Your task to perform on an android device: What is the recent news? Image 0: 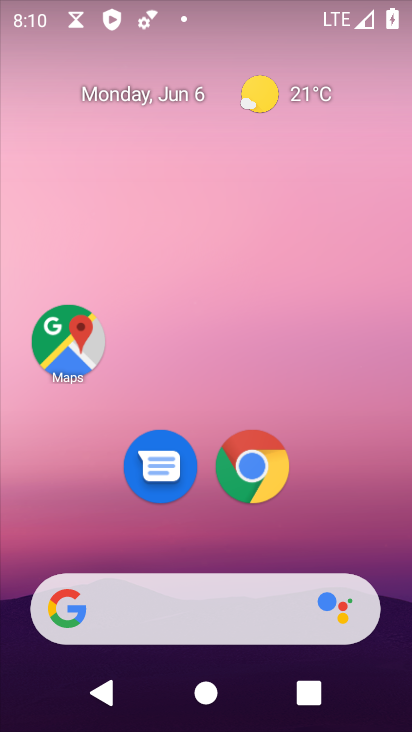
Step 0: drag from (204, 548) to (260, 227)
Your task to perform on an android device: What is the recent news? Image 1: 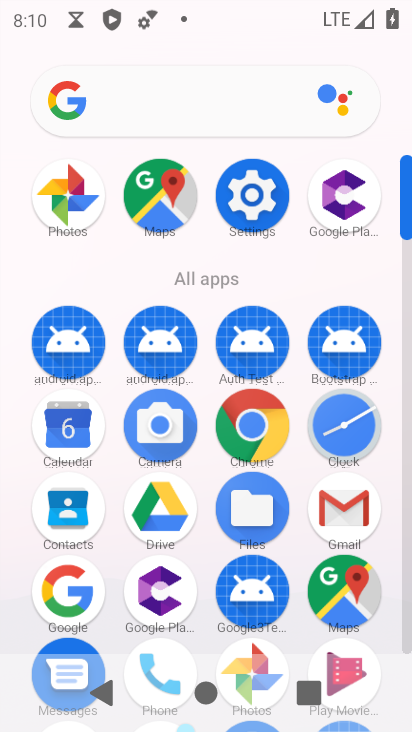
Step 1: drag from (203, 528) to (216, 240)
Your task to perform on an android device: What is the recent news? Image 2: 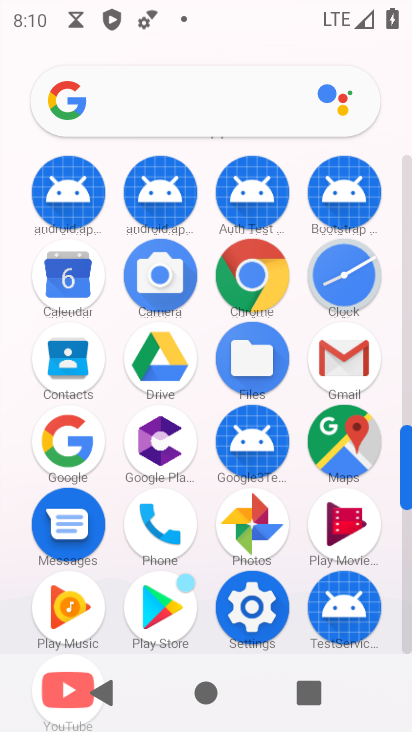
Step 2: click (167, 122)
Your task to perform on an android device: What is the recent news? Image 3: 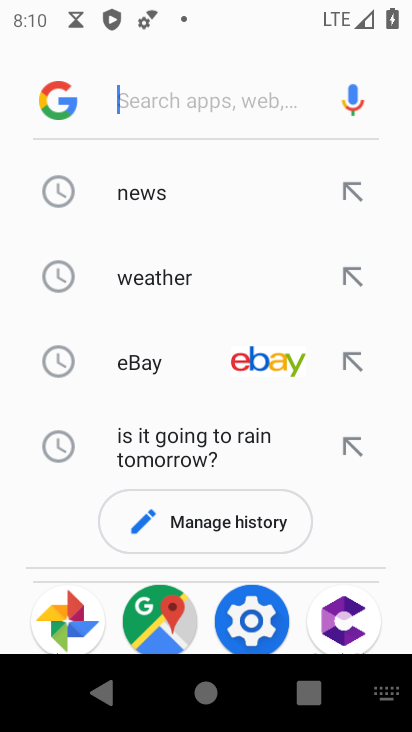
Step 3: click (191, 103)
Your task to perform on an android device: What is the recent news? Image 4: 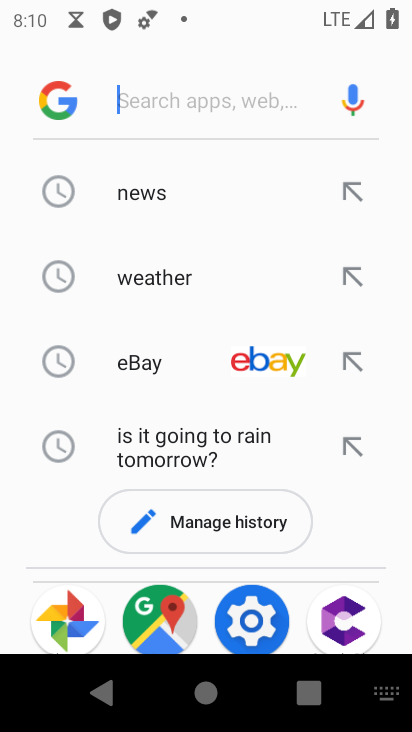
Step 4: click (152, 114)
Your task to perform on an android device: What is the recent news? Image 5: 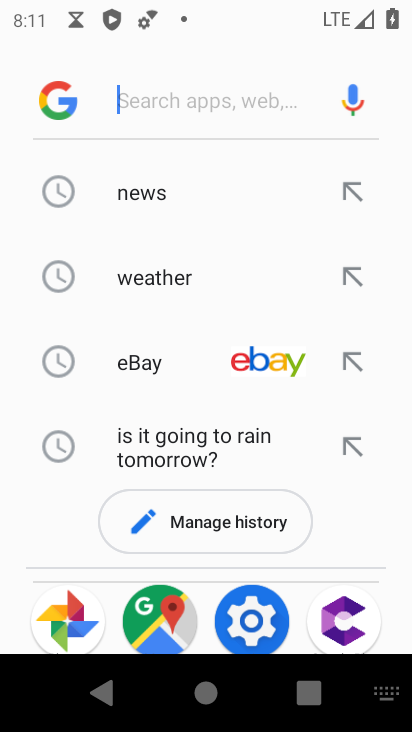
Step 5: type "recent news"
Your task to perform on an android device: What is the recent news? Image 6: 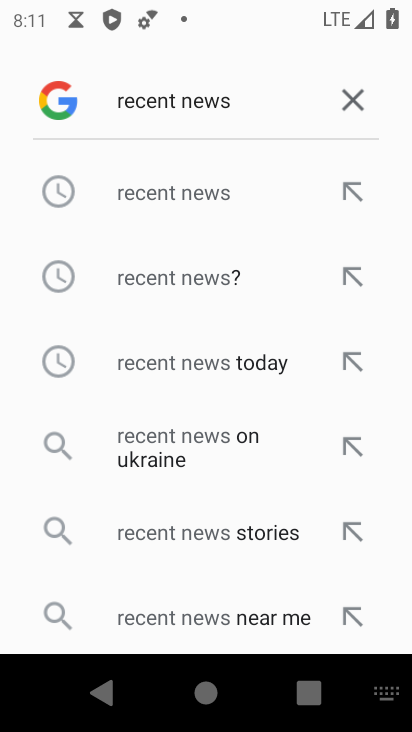
Step 6: click (188, 190)
Your task to perform on an android device: What is the recent news? Image 7: 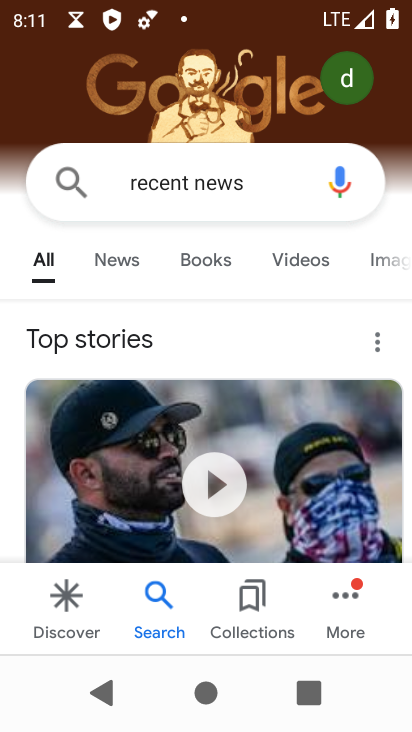
Step 7: task complete